Your task to perform on an android device: set the timer Image 0: 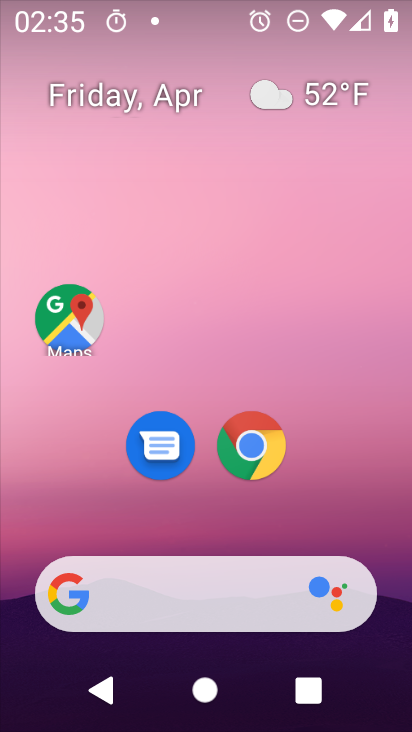
Step 0: drag from (370, 502) to (352, 131)
Your task to perform on an android device: set the timer Image 1: 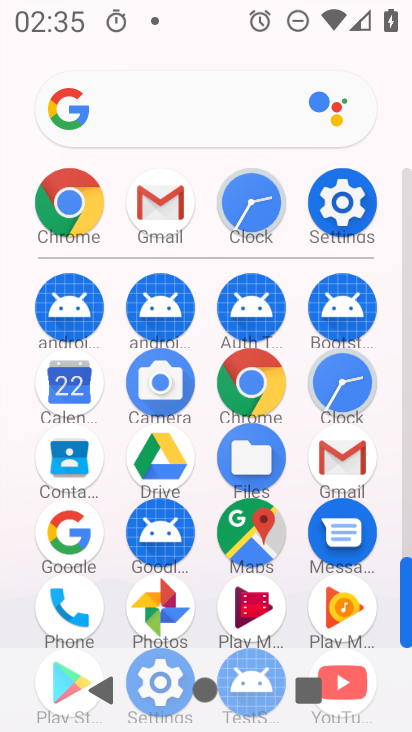
Step 1: click (333, 384)
Your task to perform on an android device: set the timer Image 2: 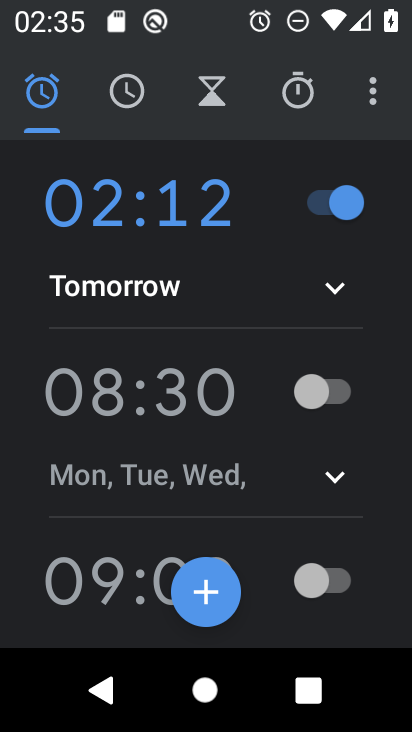
Step 2: click (217, 105)
Your task to perform on an android device: set the timer Image 3: 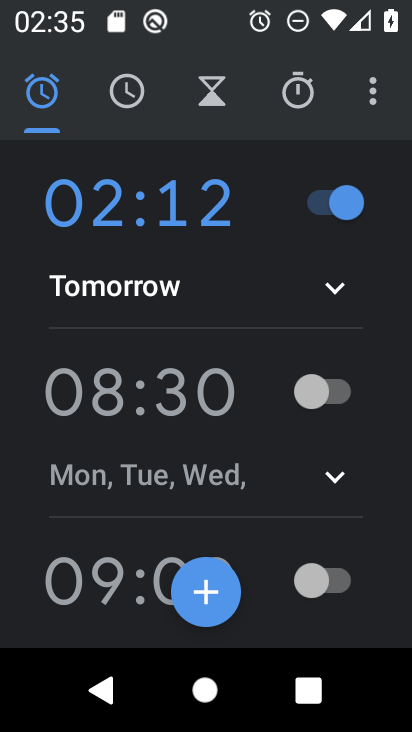
Step 3: click (215, 102)
Your task to perform on an android device: set the timer Image 4: 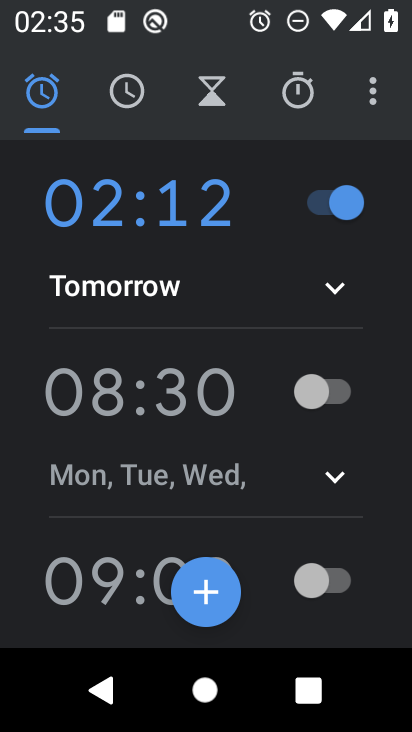
Step 4: click (222, 102)
Your task to perform on an android device: set the timer Image 5: 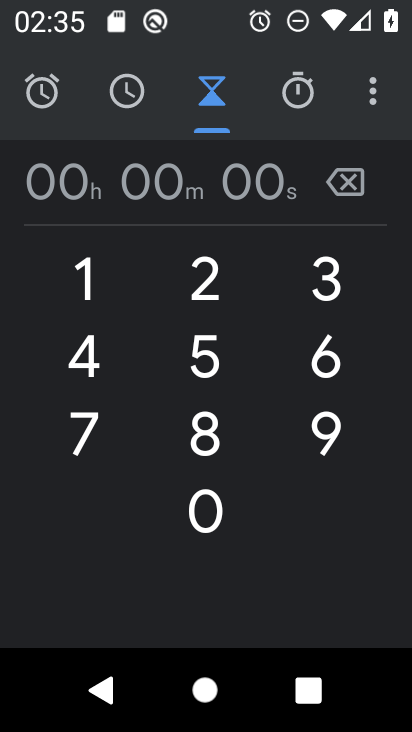
Step 5: click (219, 354)
Your task to perform on an android device: set the timer Image 6: 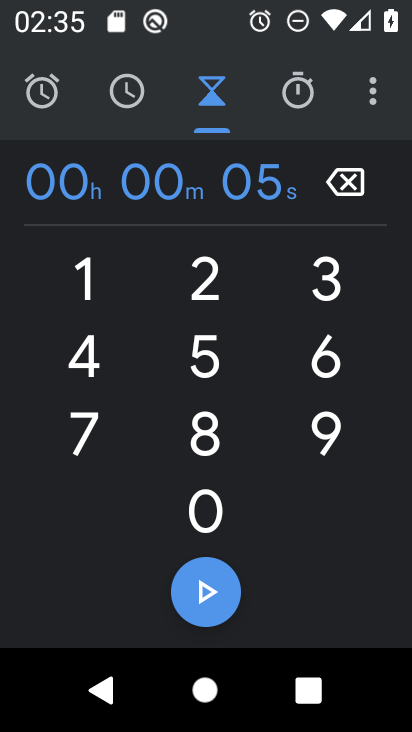
Step 6: click (235, 596)
Your task to perform on an android device: set the timer Image 7: 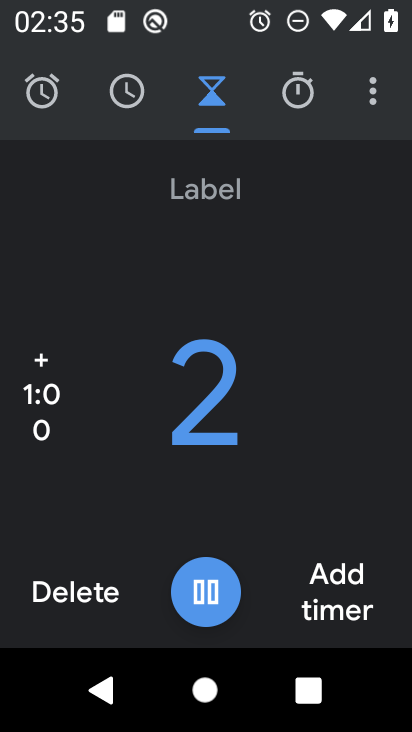
Step 7: task complete